Your task to perform on an android device: Open Google Chrome Image 0: 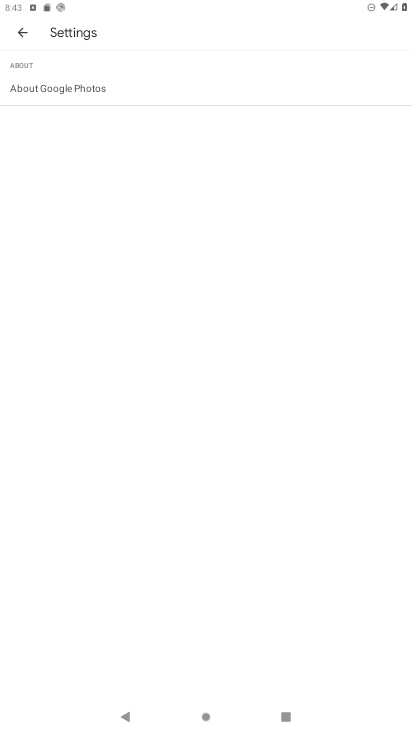
Step 0: press home button
Your task to perform on an android device: Open Google Chrome Image 1: 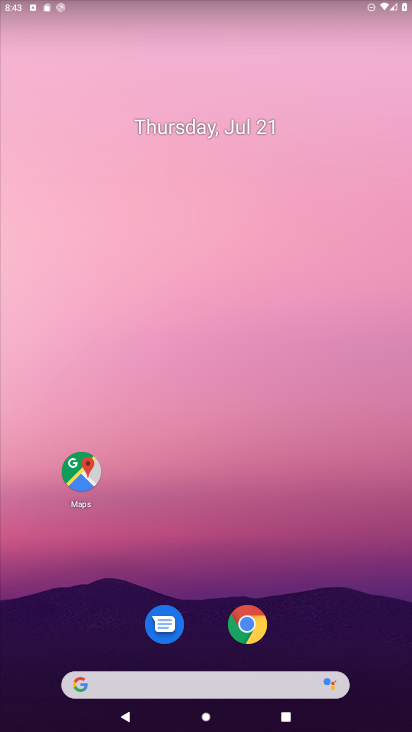
Step 1: click (253, 617)
Your task to perform on an android device: Open Google Chrome Image 2: 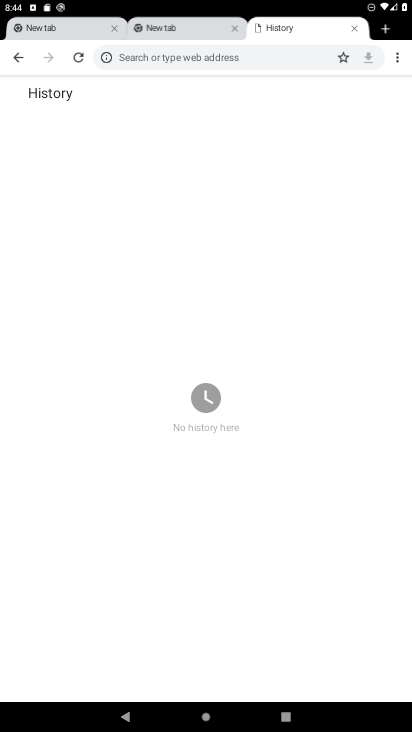
Step 2: click (354, 26)
Your task to perform on an android device: Open Google Chrome Image 3: 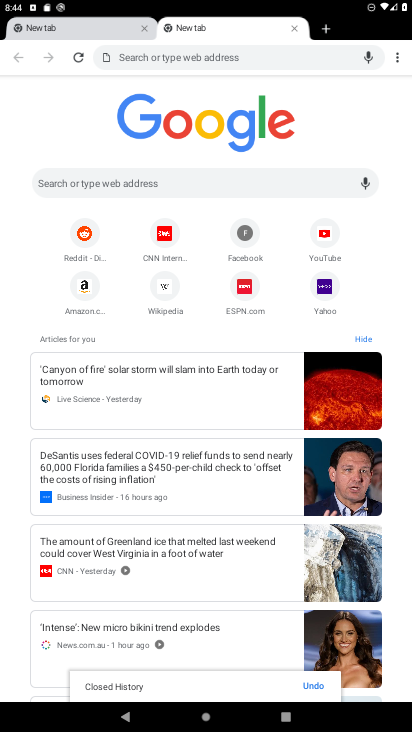
Step 3: click (146, 28)
Your task to perform on an android device: Open Google Chrome Image 4: 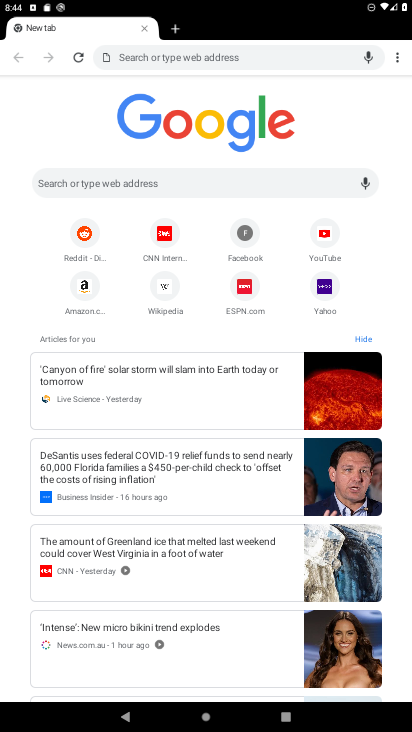
Step 4: task complete